Your task to perform on an android device: turn off picture-in-picture Image 0: 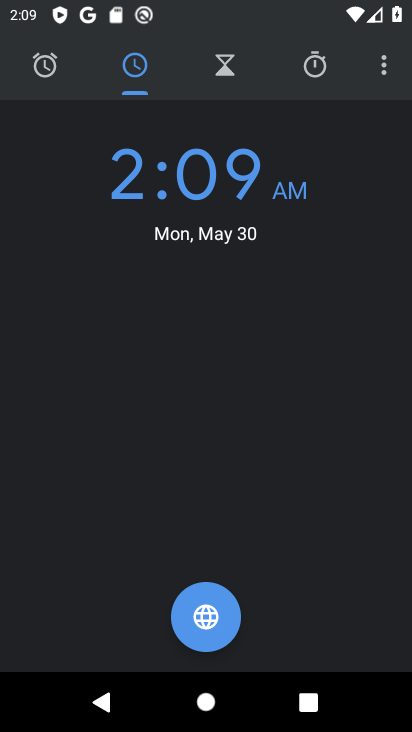
Step 0: press back button
Your task to perform on an android device: turn off picture-in-picture Image 1: 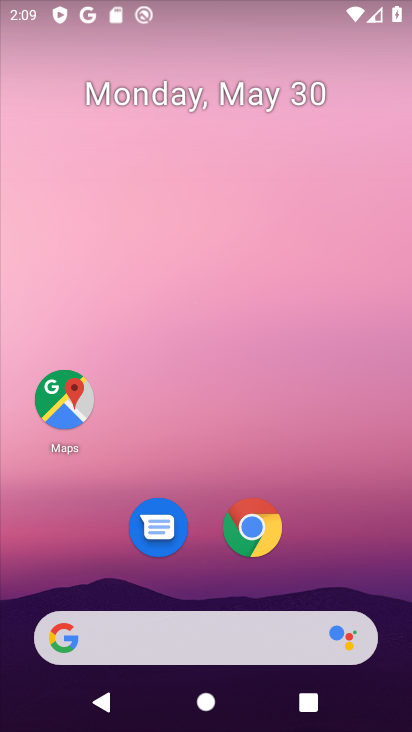
Step 1: drag from (235, 587) to (212, 98)
Your task to perform on an android device: turn off picture-in-picture Image 2: 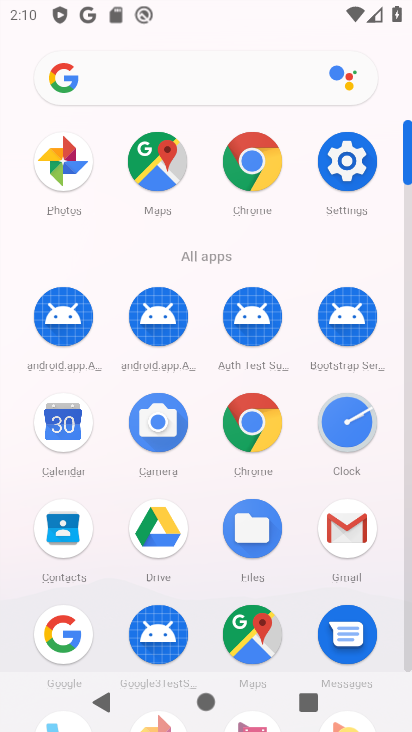
Step 2: click (251, 429)
Your task to perform on an android device: turn off picture-in-picture Image 3: 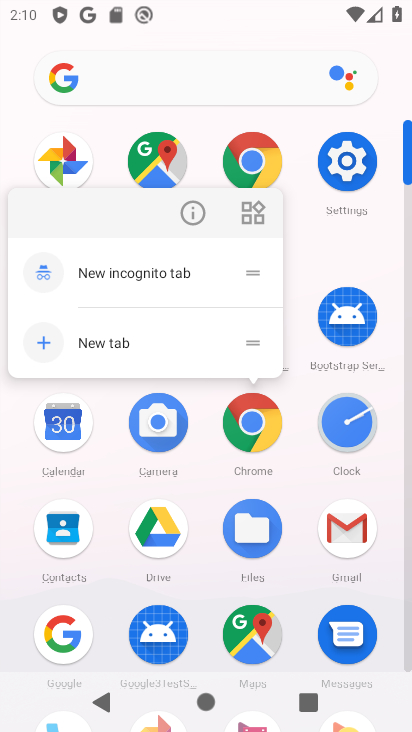
Step 3: click (193, 217)
Your task to perform on an android device: turn off picture-in-picture Image 4: 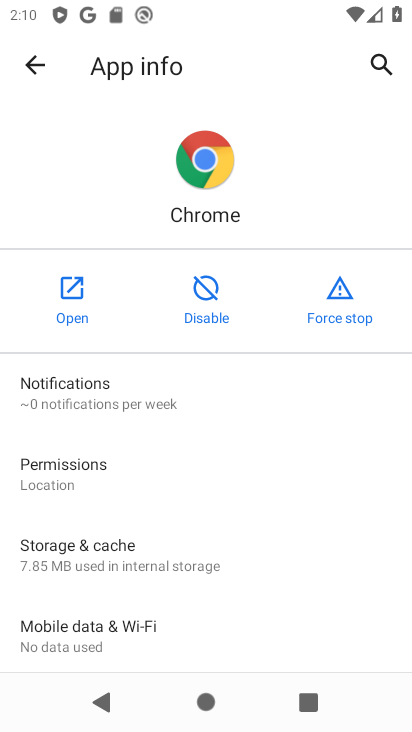
Step 4: click (159, 251)
Your task to perform on an android device: turn off picture-in-picture Image 5: 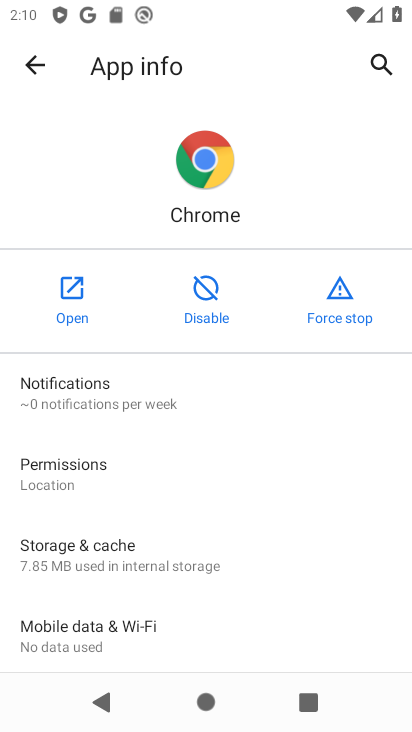
Step 5: drag from (175, 543) to (168, 295)
Your task to perform on an android device: turn off picture-in-picture Image 6: 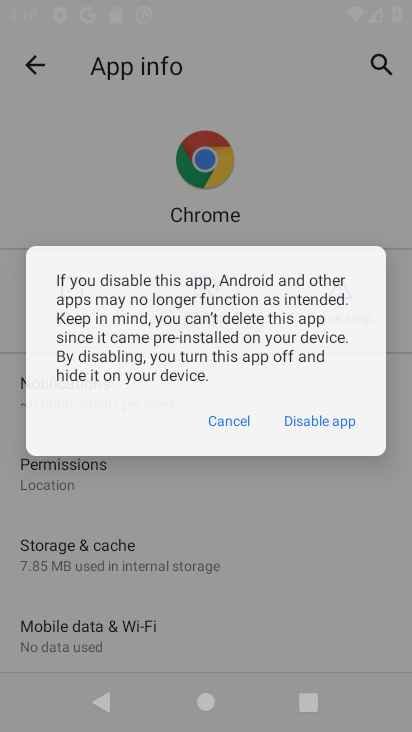
Step 6: drag from (165, 555) to (165, 293)
Your task to perform on an android device: turn off picture-in-picture Image 7: 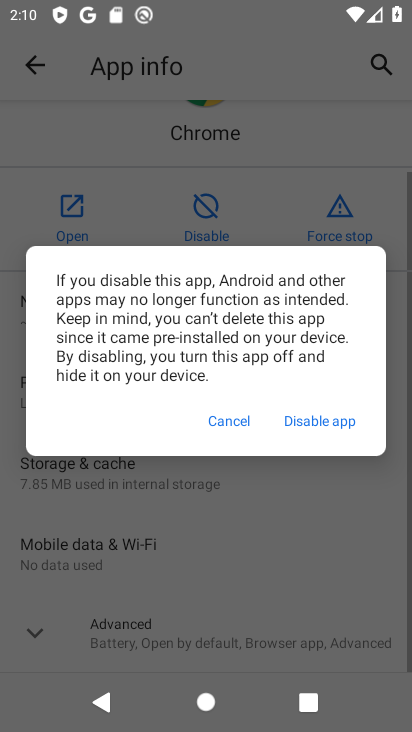
Step 7: drag from (124, 500) to (124, 450)
Your task to perform on an android device: turn off picture-in-picture Image 8: 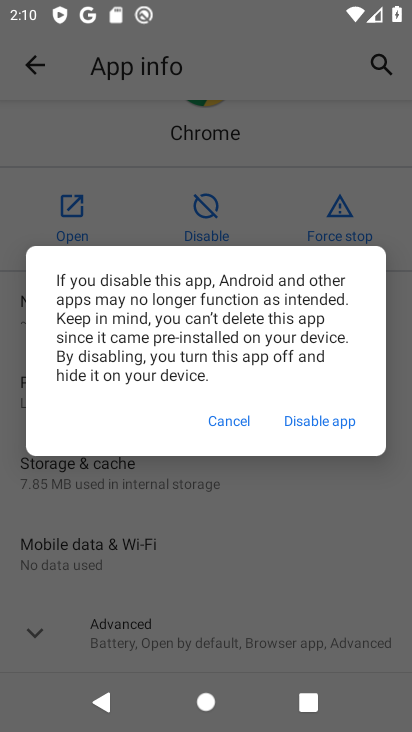
Step 8: click (230, 417)
Your task to perform on an android device: turn off picture-in-picture Image 9: 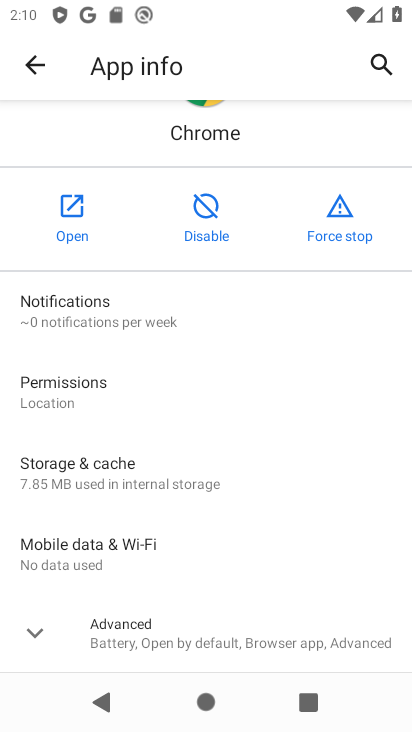
Step 9: drag from (95, 559) to (109, 313)
Your task to perform on an android device: turn off picture-in-picture Image 10: 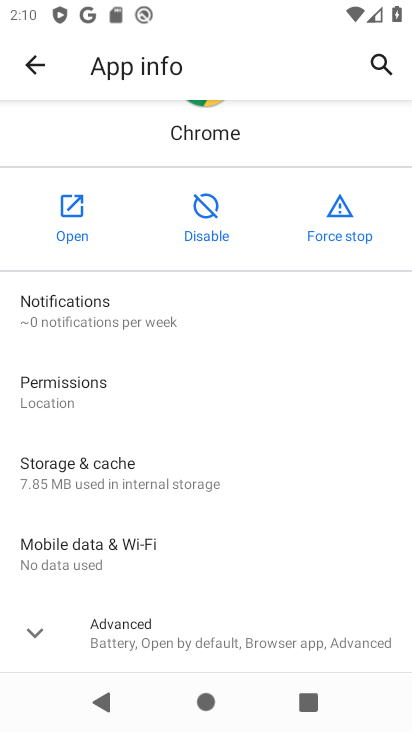
Step 10: click (131, 622)
Your task to perform on an android device: turn off picture-in-picture Image 11: 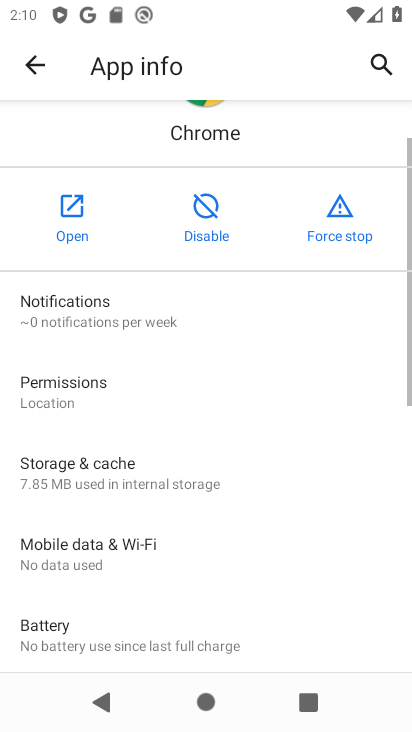
Step 11: drag from (112, 386) to (112, 257)
Your task to perform on an android device: turn off picture-in-picture Image 12: 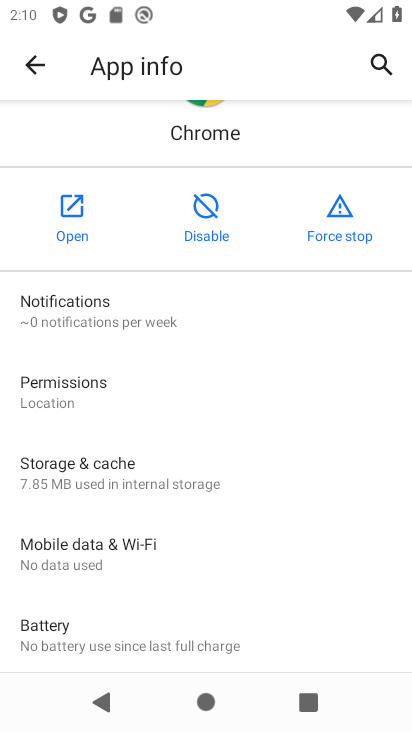
Step 12: drag from (142, 474) to (116, 255)
Your task to perform on an android device: turn off picture-in-picture Image 13: 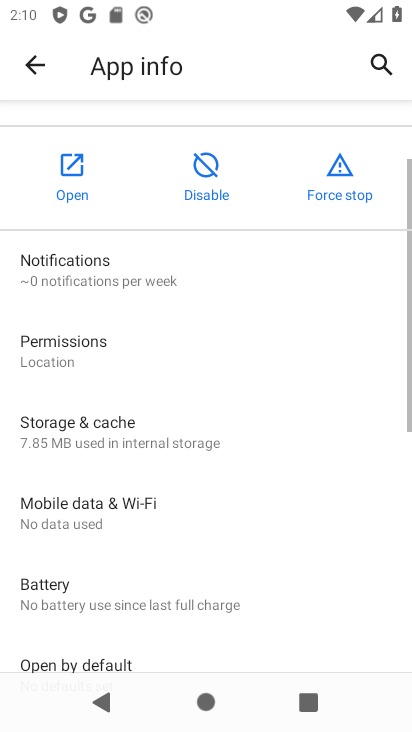
Step 13: drag from (152, 320) to (152, 248)
Your task to perform on an android device: turn off picture-in-picture Image 14: 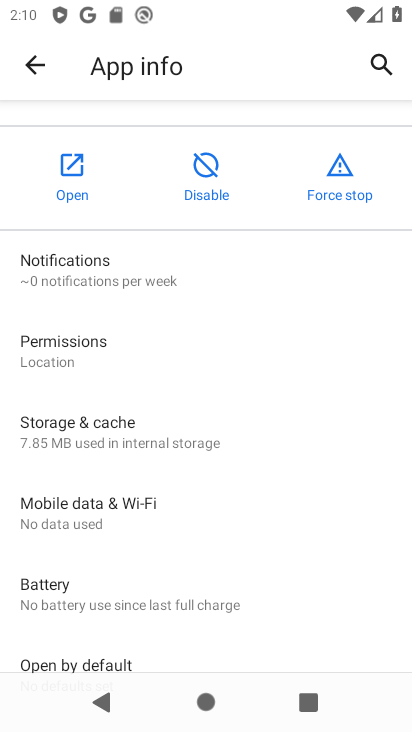
Step 14: drag from (116, 568) to (93, 248)
Your task to perform on an android device: turn off picture-in-picture Image 15: 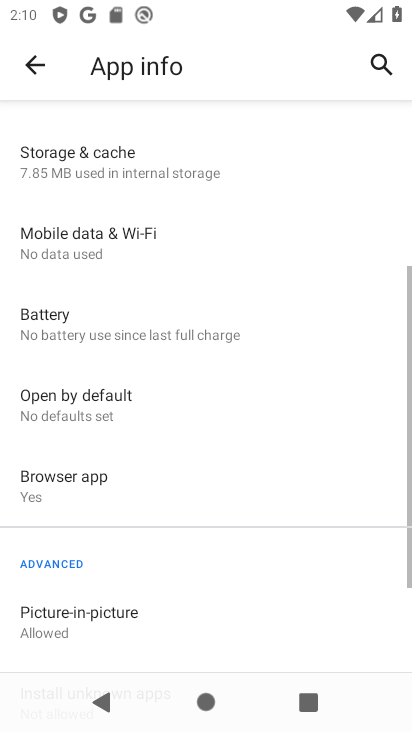
Step 15: drag from (110, 432) to (127, 144)
Your task to perform on an android device: turn off picture-in-picture Image 16: 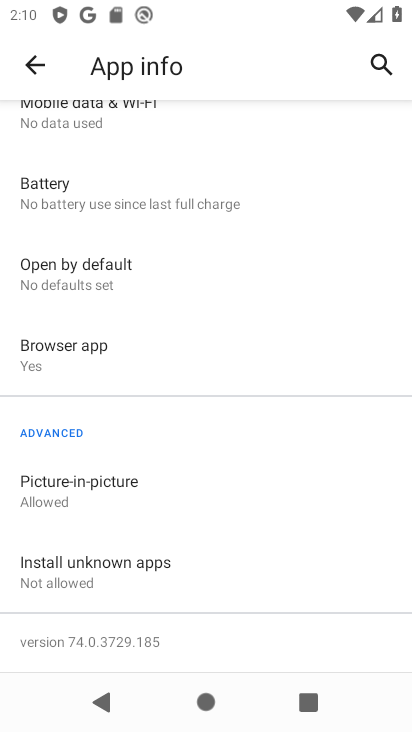
Step 16: click (47, 494)
Your task to perform on an android device: turn off picture-in-picture Image 17: 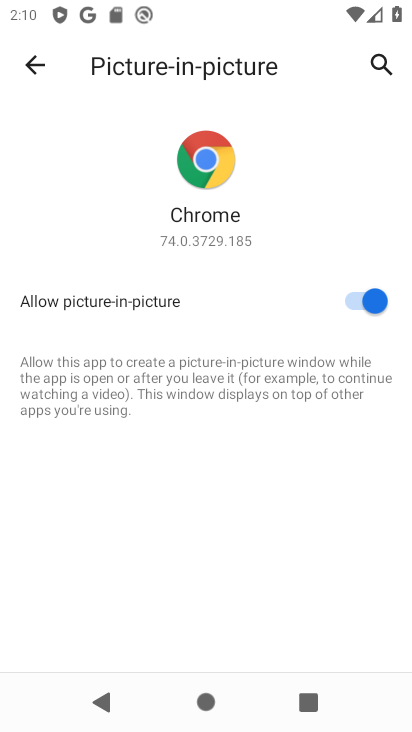
Step 17: click (358, 299)
Your task to perform on an android device: turn off picture-in-picture Image 18: 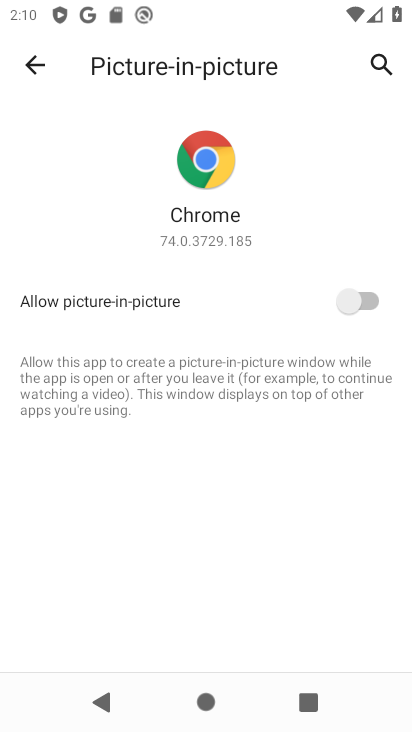
Step 18: task complete